Your task to perform on an android device: Show me recent news Image 0: 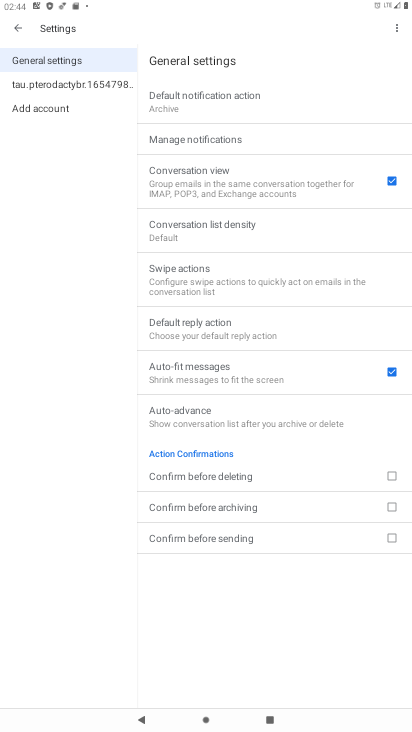
Step 0: press home button
Your task to perform on an android device: Show me recent news Image 1: 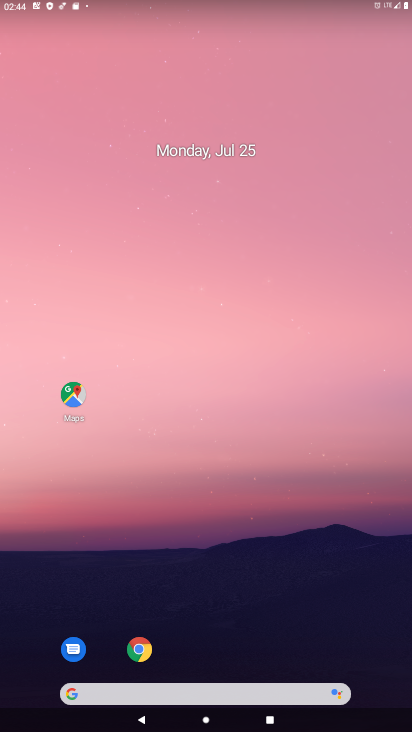
Step 1: task complete